Your task to perform on an android device: open chrome and create a bookmark for the current page Image 0: 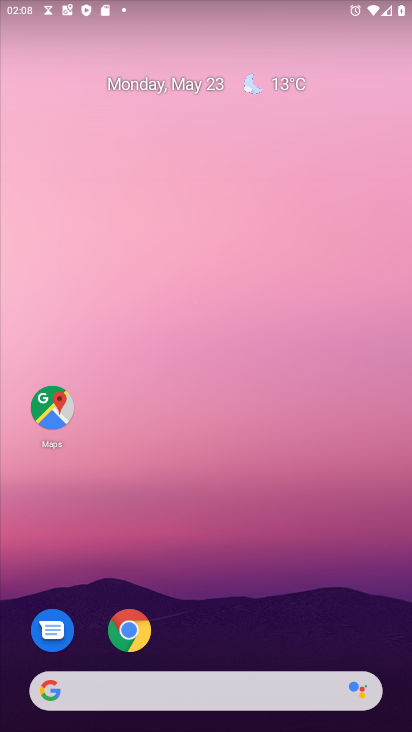
Step 0: click (134, 636)
Your task to perform on an android device: open chrome and create a bookmark for the current page Image 1: 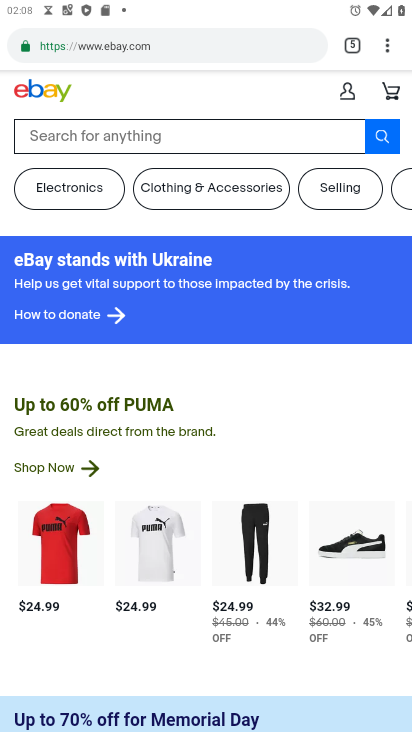
Step 1: click (390, 44)
Your task to perform on an android device: open chrome and create a bookmark for the current page Image 2: 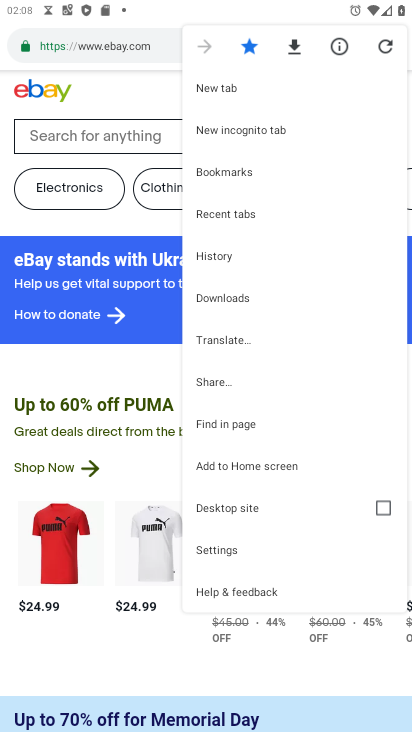
Step 2: task complete